Your task to perform on an android device: Go to privacy settings Image 0: 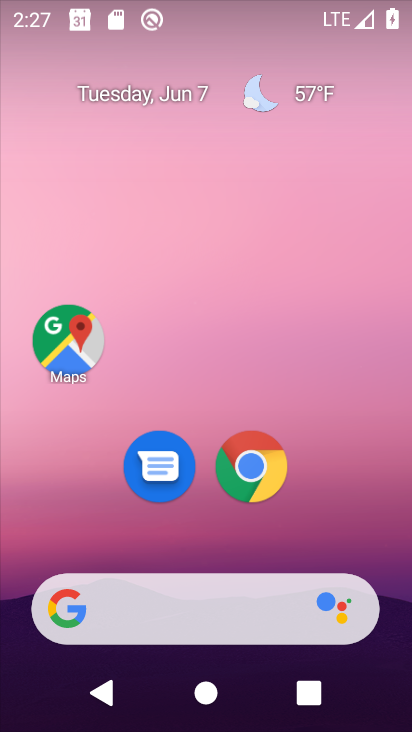
Step 0: drag from (210, 508) to (345, 16)
Your task to perform on an android device: Go to privacy settings Image 1: 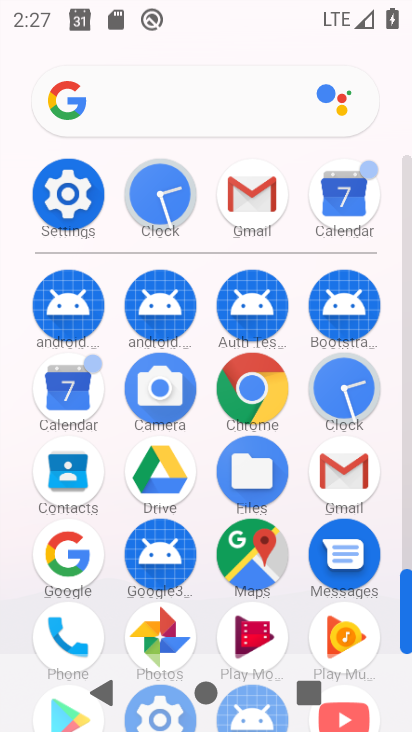
Step 1: click (68, 192)
Your task to perform on an android device: Go to privacy settings Image 2: 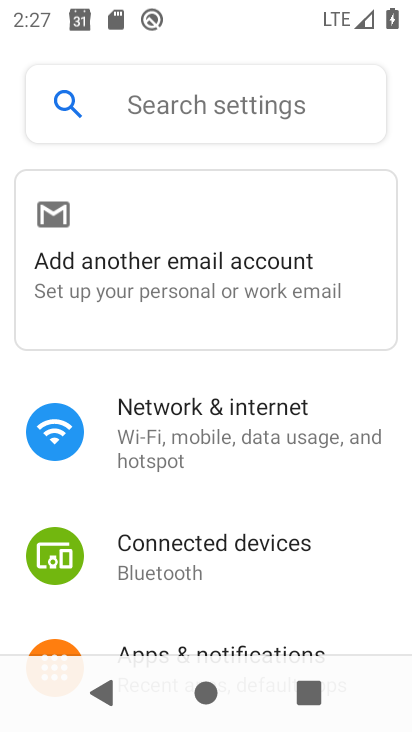
Step 2: drag from (193, 600) to (313, 118)
Your task to perform on an android device: Go to privacy settings Image 3: 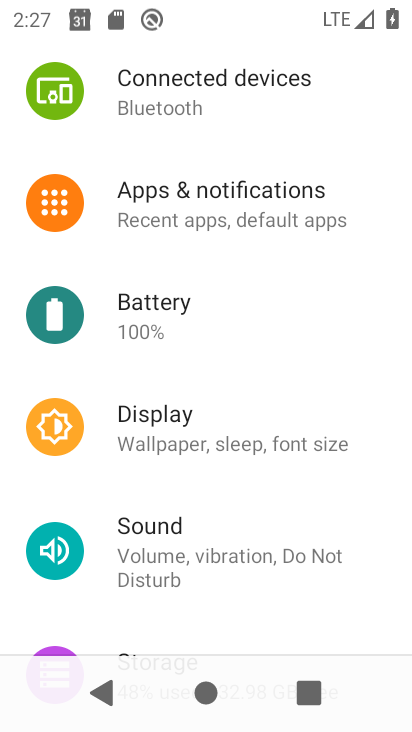
Step 3: drag from (225, 514) to (321, 73)
Your task to perform on an android device: Go to privacy settings Image 4: 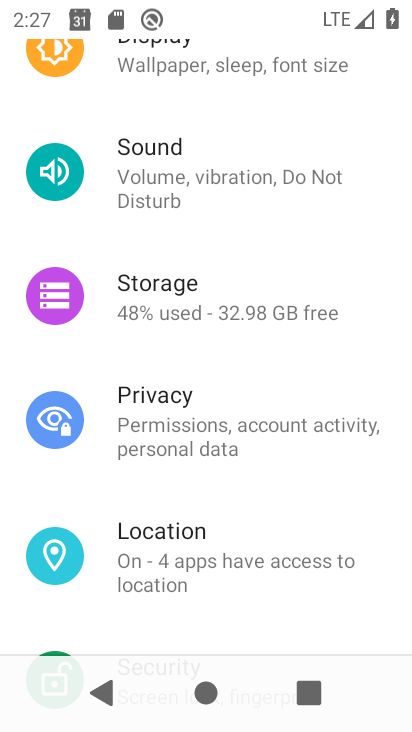
Step 4: click (161, 426)
Your task to perform on an android device: Go to privacy settings Image 5: 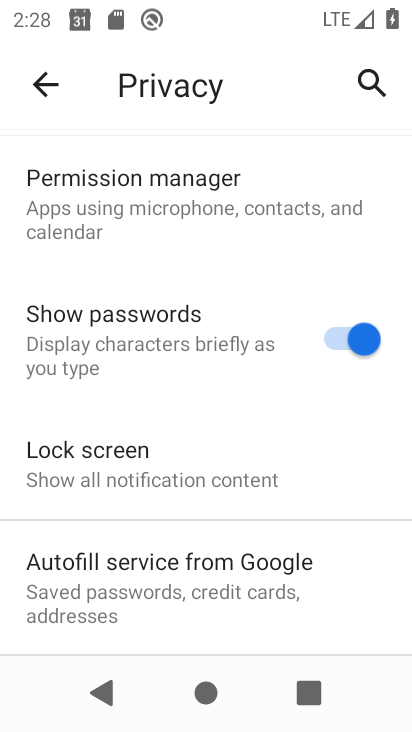
Step 5: task complete